Your task to perform on an android device: Open sound settings Image 0: 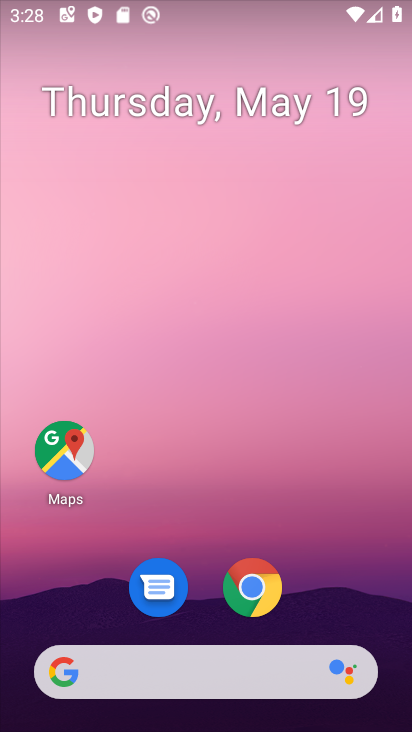
Step 0: drag from (371, 588) to (357, 170)
Your task to perform on an android device: Open sound settings Image 1: 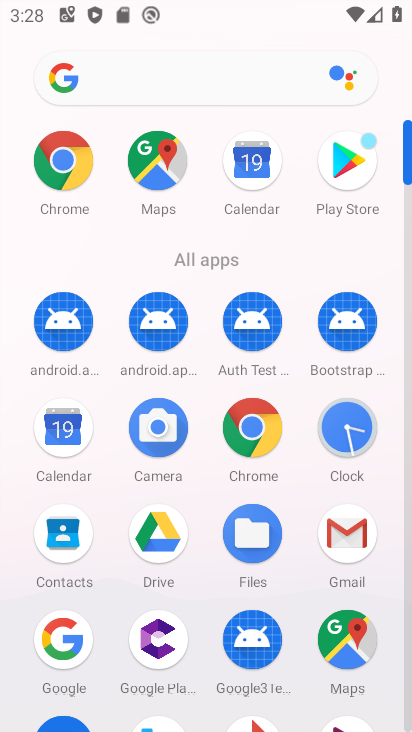
Step 1: drag from (204, 587) to (189, 367)
Your task to perform on an android device: Open sound settings Image 2: 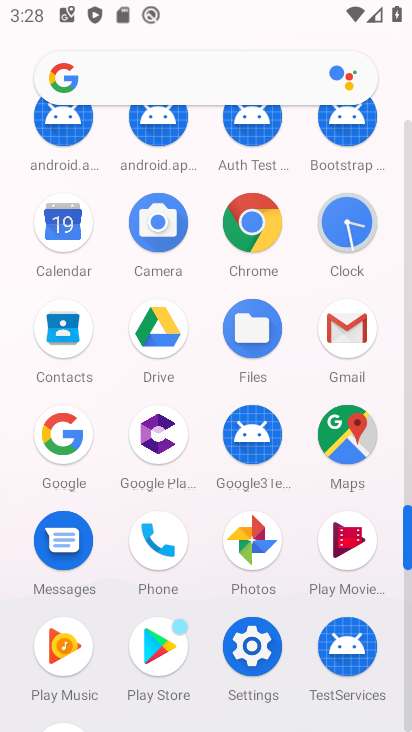
Step 2: click (258, 669)
Your task to perform on an android device: Open sound settings Image 3: 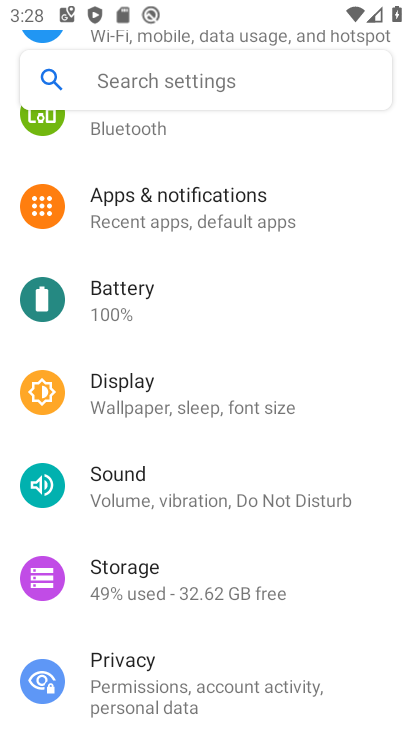
Step 3: drag from (348, 343) to (352, 577)
Your task to perform on an android device: Open sound settings Image 4: 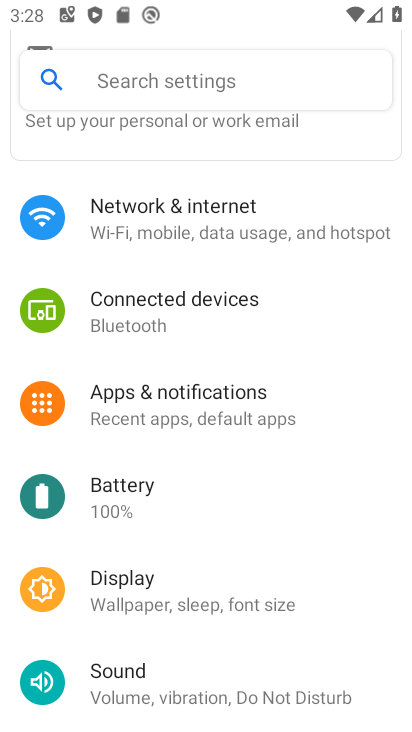
Step 4: drag from (336, 367) to (337, 564)
Your task to perform on an android device: Open sound settings Image 5: 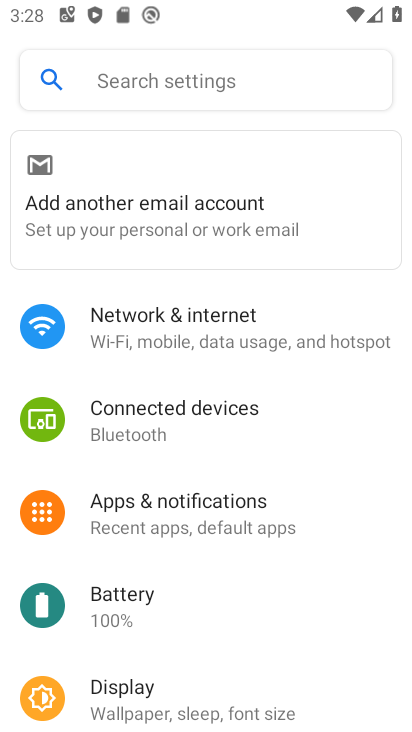
Step 5: drag from (343, 317) to (349, 531)
Your task to perform on an android device: Open sound settings Image 6: 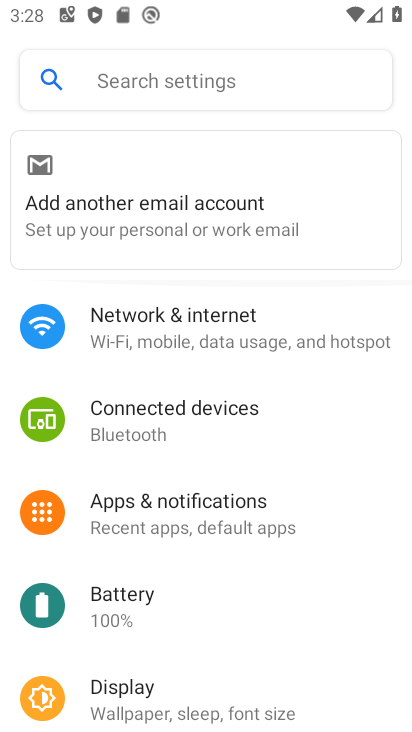
Step 6: drag from (340, 595) to (349, 448)
Your task to perform on an android device: Open sound settings Image 7: 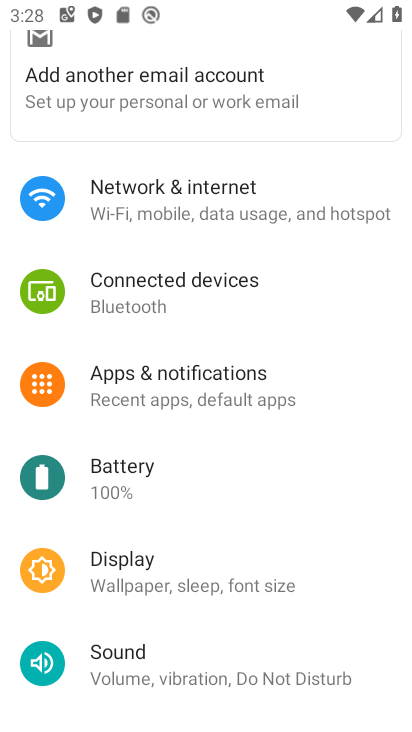
Step 7: drag from (345, 618) to (334, 421)
Your task to perform on an android device: Open sound settings Image 8: 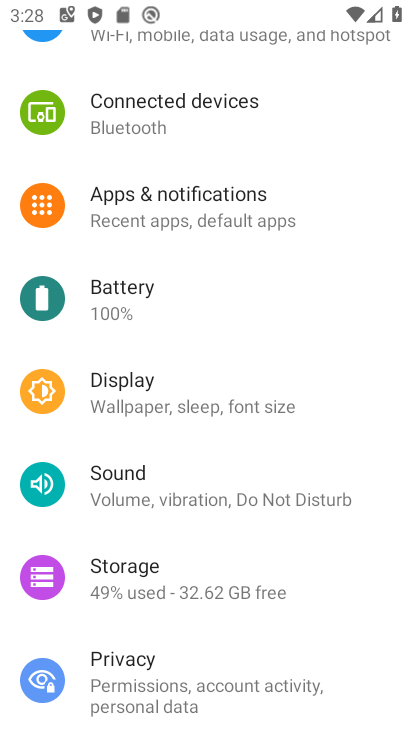
Step 8: drag from (352, 657) to (357, 448)
Your task to perform on an android device: Open sound settings Image 9: 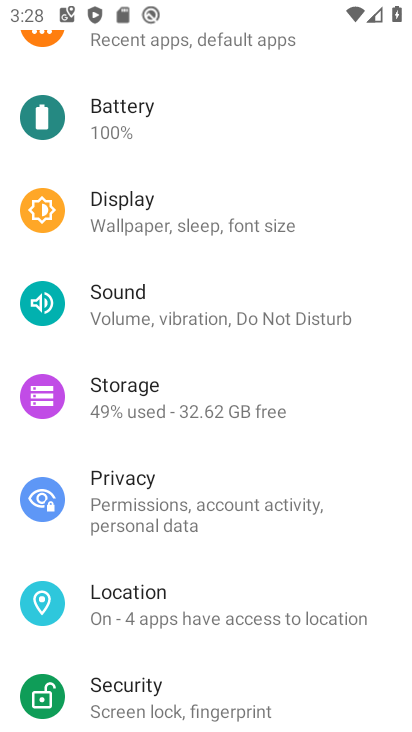
Step 9: drag from (351, 667) to (354, 477)
Your task to perform on an android device: Open sound settings Image 10: 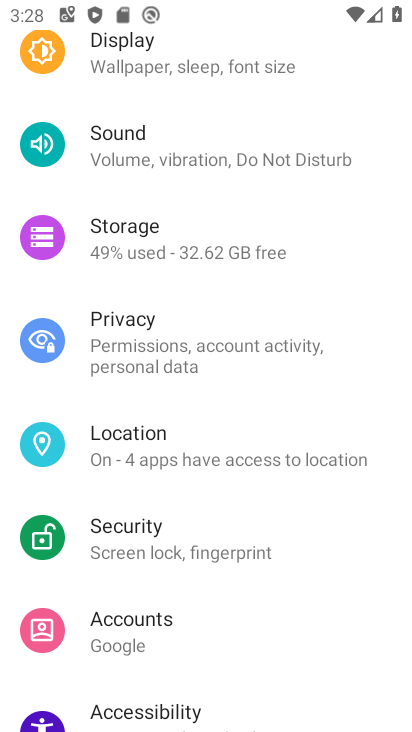
Step 10: drag from (327, 658) to (334, 486)
Your task to perform on an android device: Open sound settings Image 11: 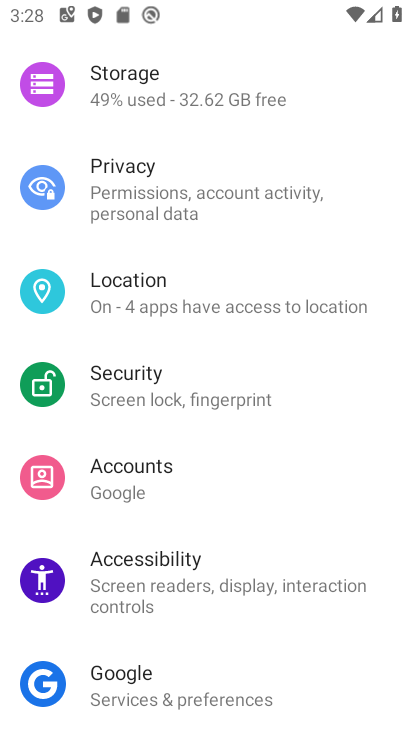
Step 11: drag from (312, 652) to (307, 477)
Your task to perform on an android device: Open sound settings Image 12: 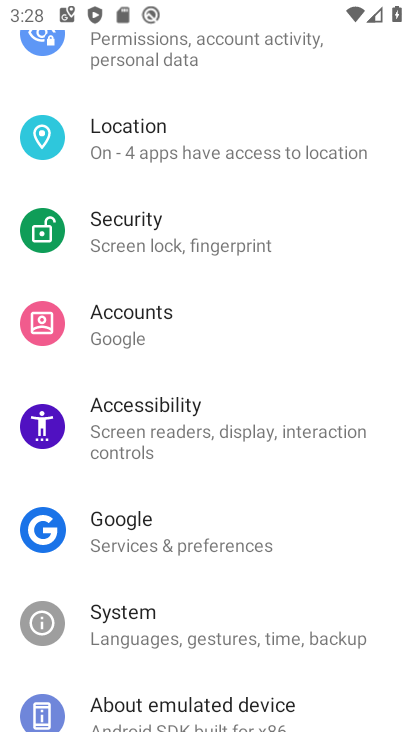
Step 12: drag from (326, 330) to (326, 485)
Your task to perform on an android device: Open sound settings Image 13: 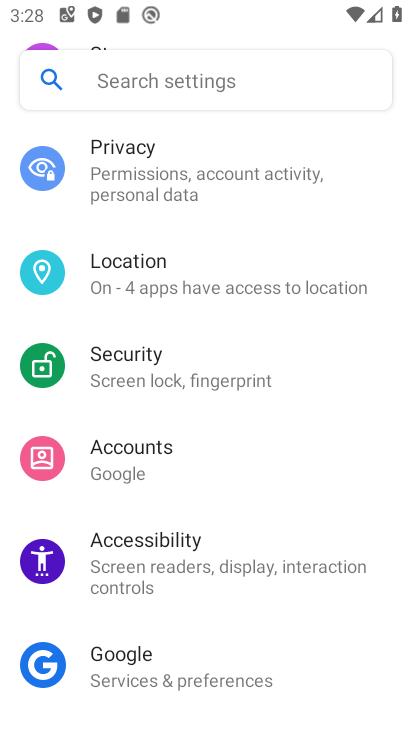
Step 13: drag from (323, 348) to (322, 471)
Your task to perform on an android device: Open sound settings Image 14: 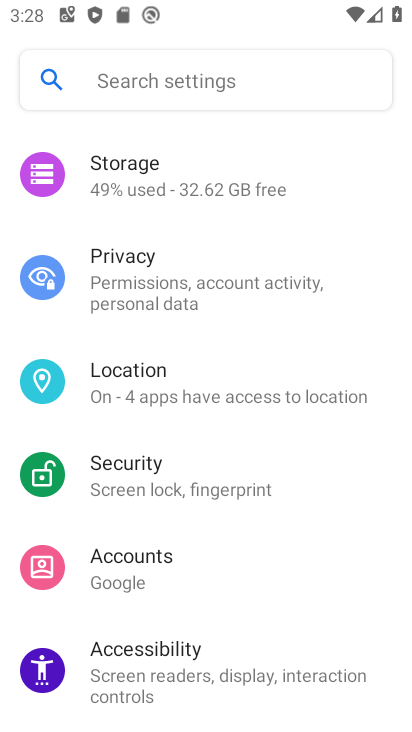
Step 14: drag from (331, 242) to (332, 442)
Your task to perform on an android device: Open sound settings Image 15: 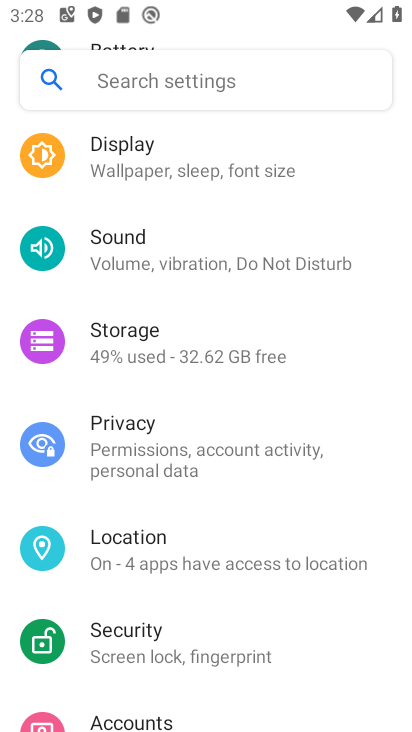
Step 15: click (258, 256)
Your task to perform on an android device: Open sound settings Image 16: 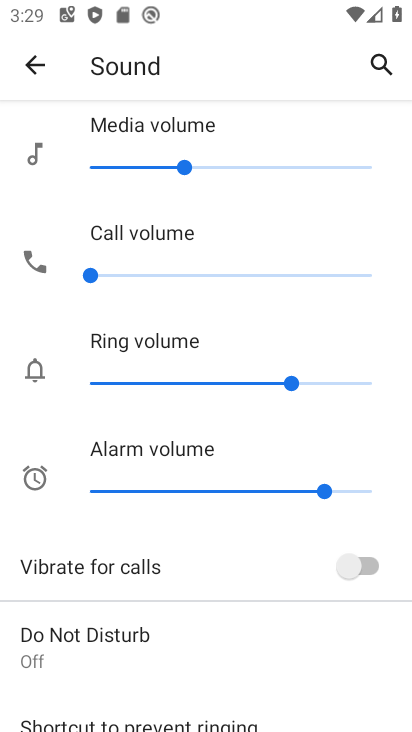
Step 16: drag from (276, 650) to (261, 398)
Your task to perform on an android device: Open sound settings Image 17: 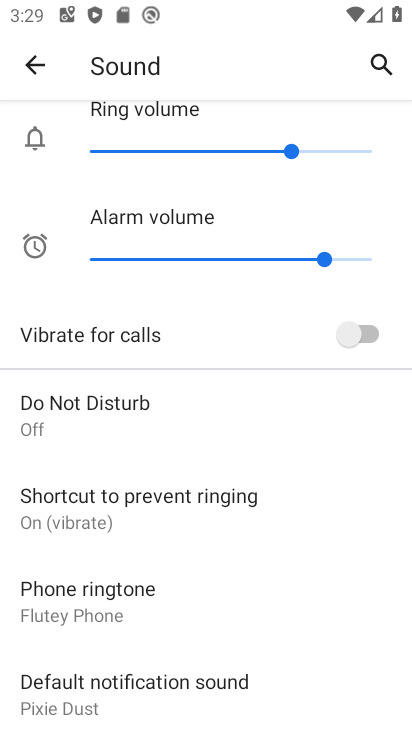
Step 17: drag from (282, 605) to (281, 522)
Your task to perform on an android device: Open sound settings Image 18: 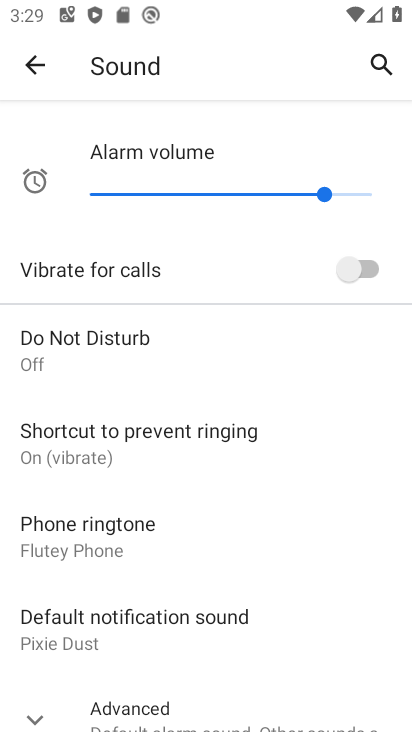
Step 18: click (165, 365)
Your task to perform on an android device: Open sound settings Image 19: 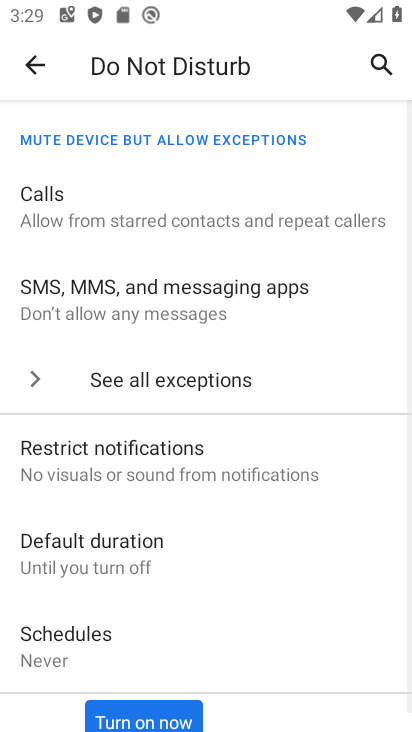
Step 19: drag from (244, 619) to (247, 462)
Your task to perform on an android device: Open sound settings Image 20: 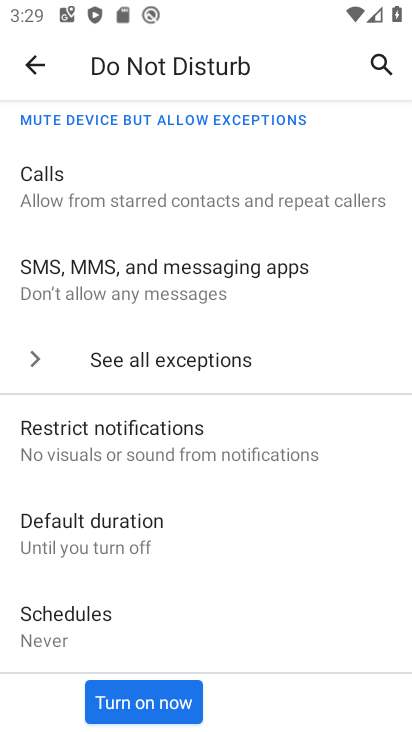
Step 20: click (163, 711)
Your task to perform on an android device: Open sound settings Image 21: 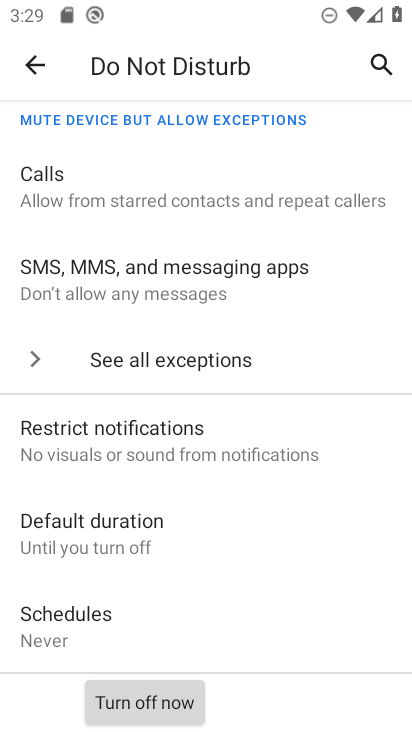
Step 21: task complete